Your task to perform on an android device: all mails in gmail Image 0: 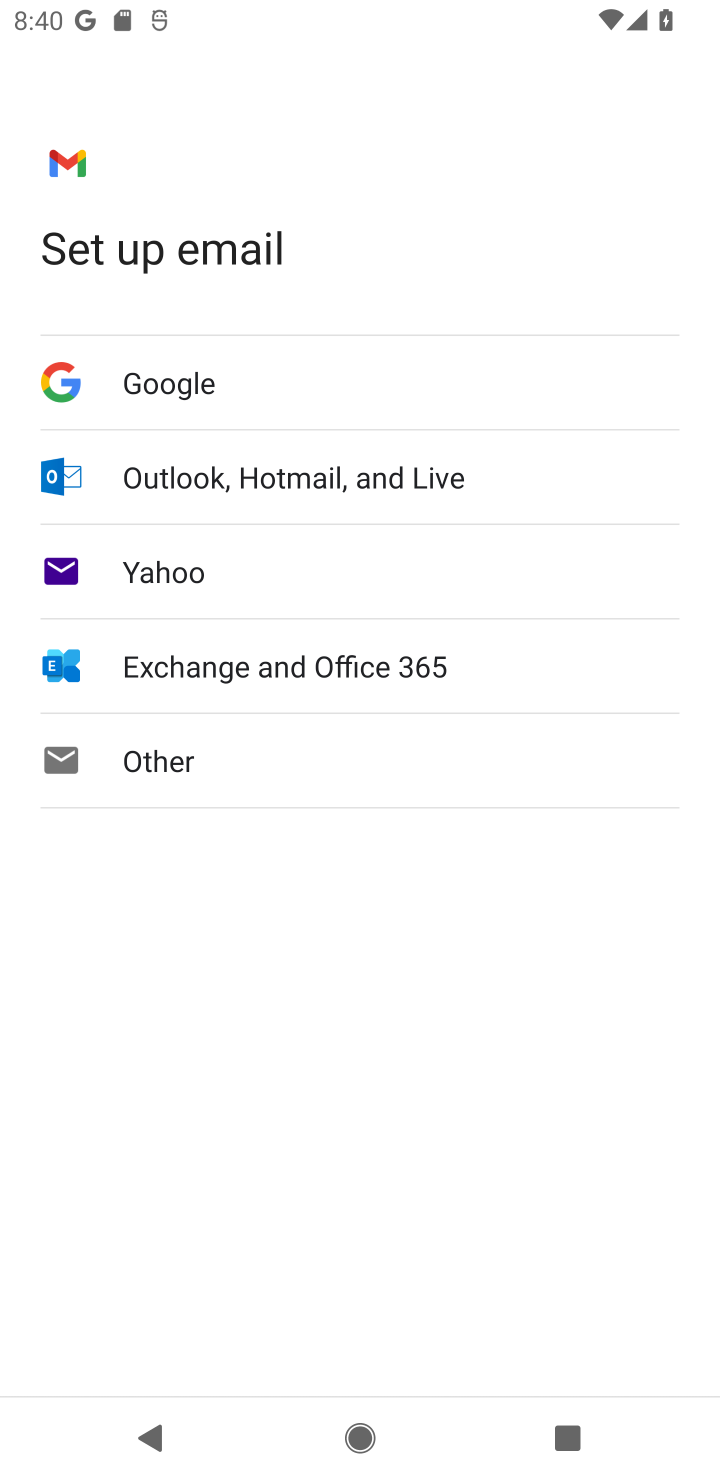
Step 0: press home button
Your task to perform on an android device: all mails in gmail Image 1: 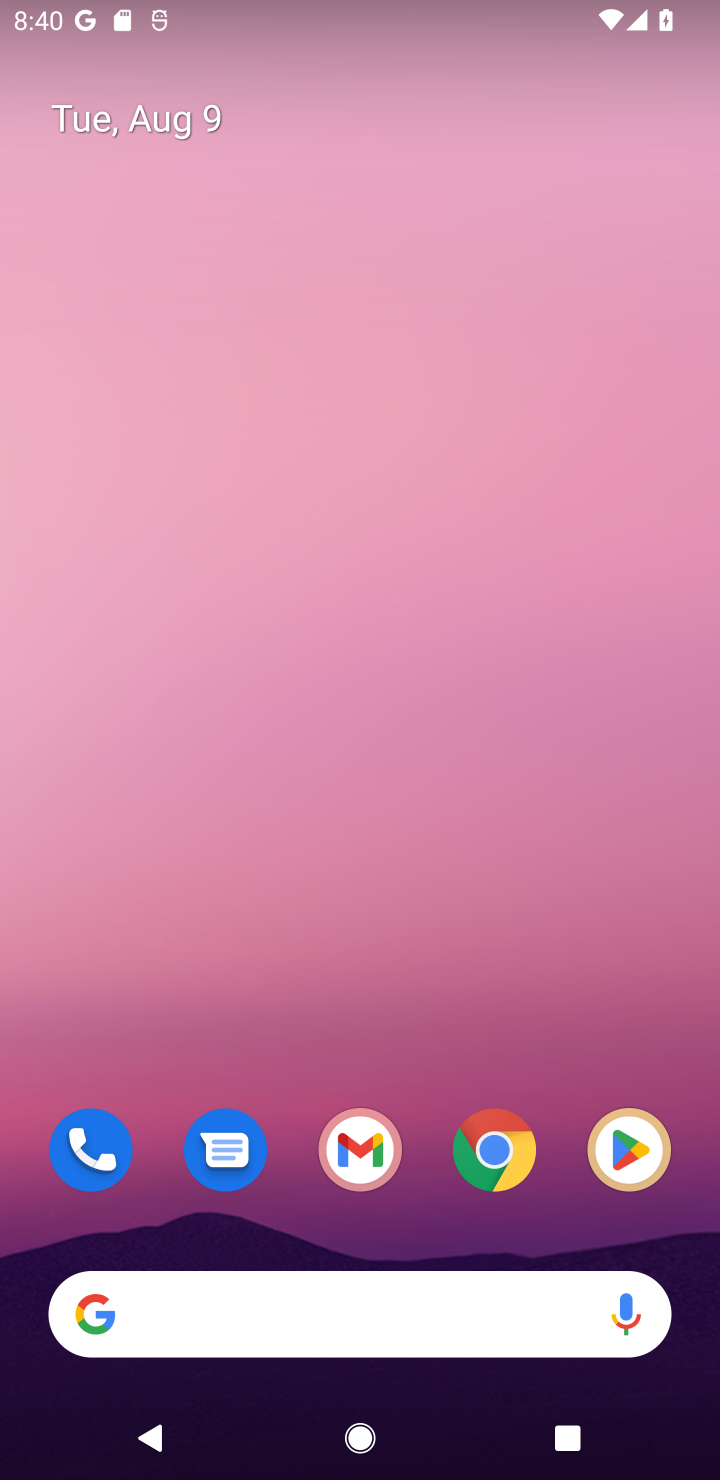
Step 1: drag from (352, 1278) to (433, 154)
Your task to perform on an android device: all mails in gmail Image 2: 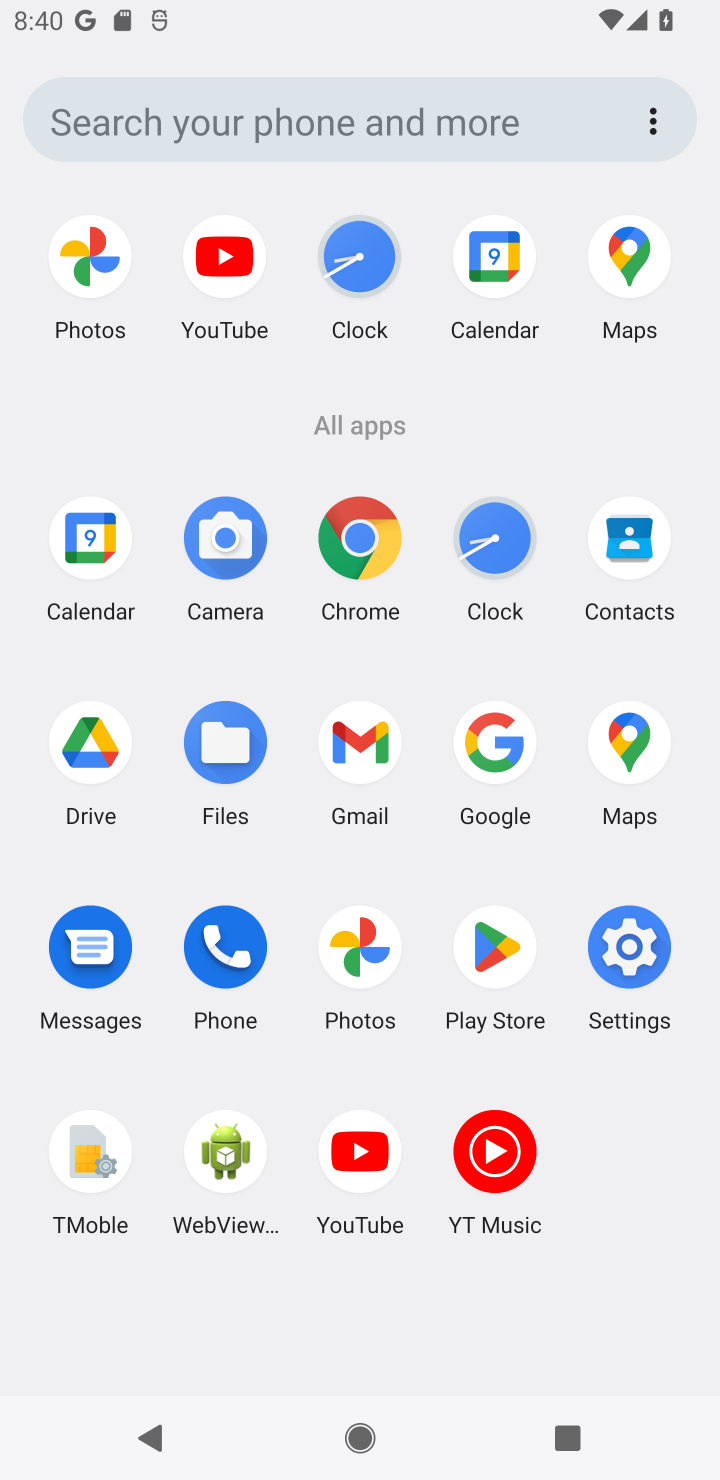
Step 2: click (362, 736)
Your task to perform on an android device: all mails in gmail Image 3: 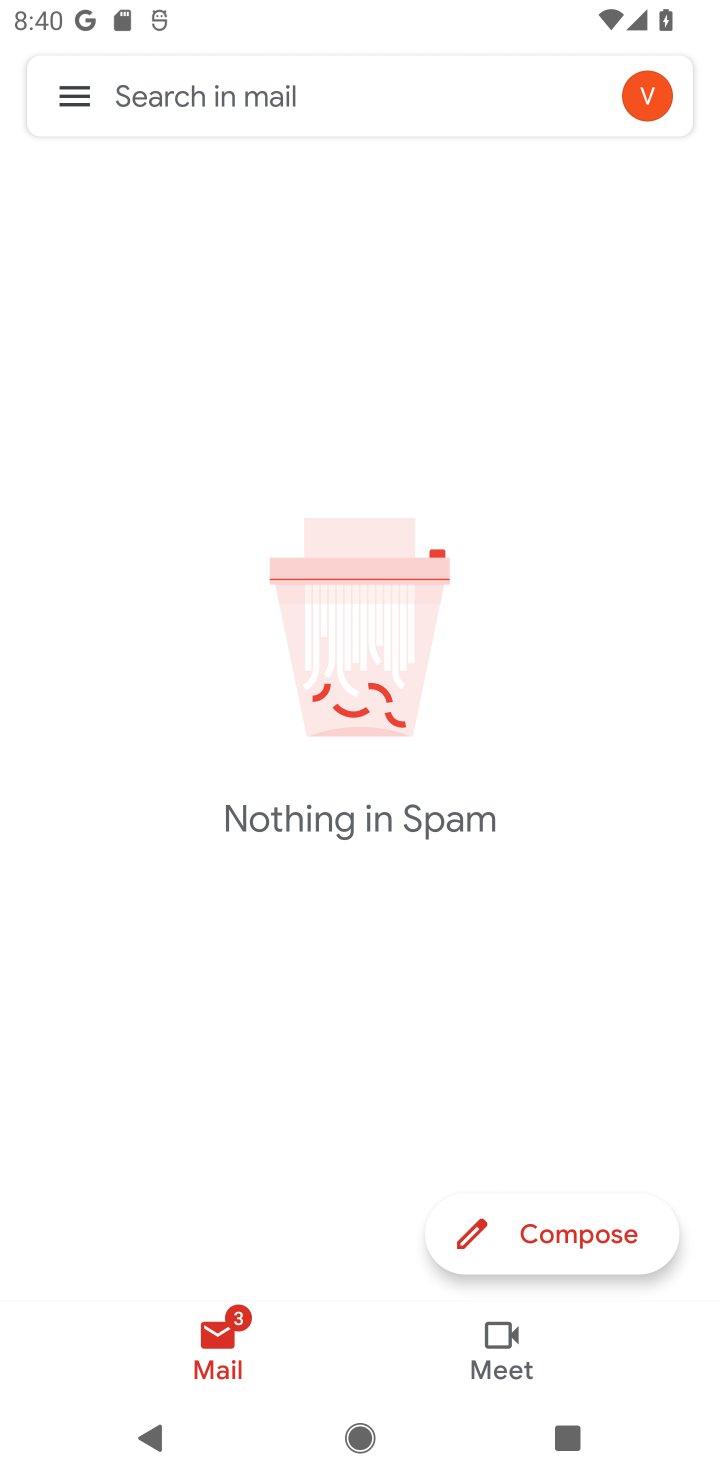
Step 3: click (76, 114)
Your task to perform on an android device: all mails in gmail Image 4: 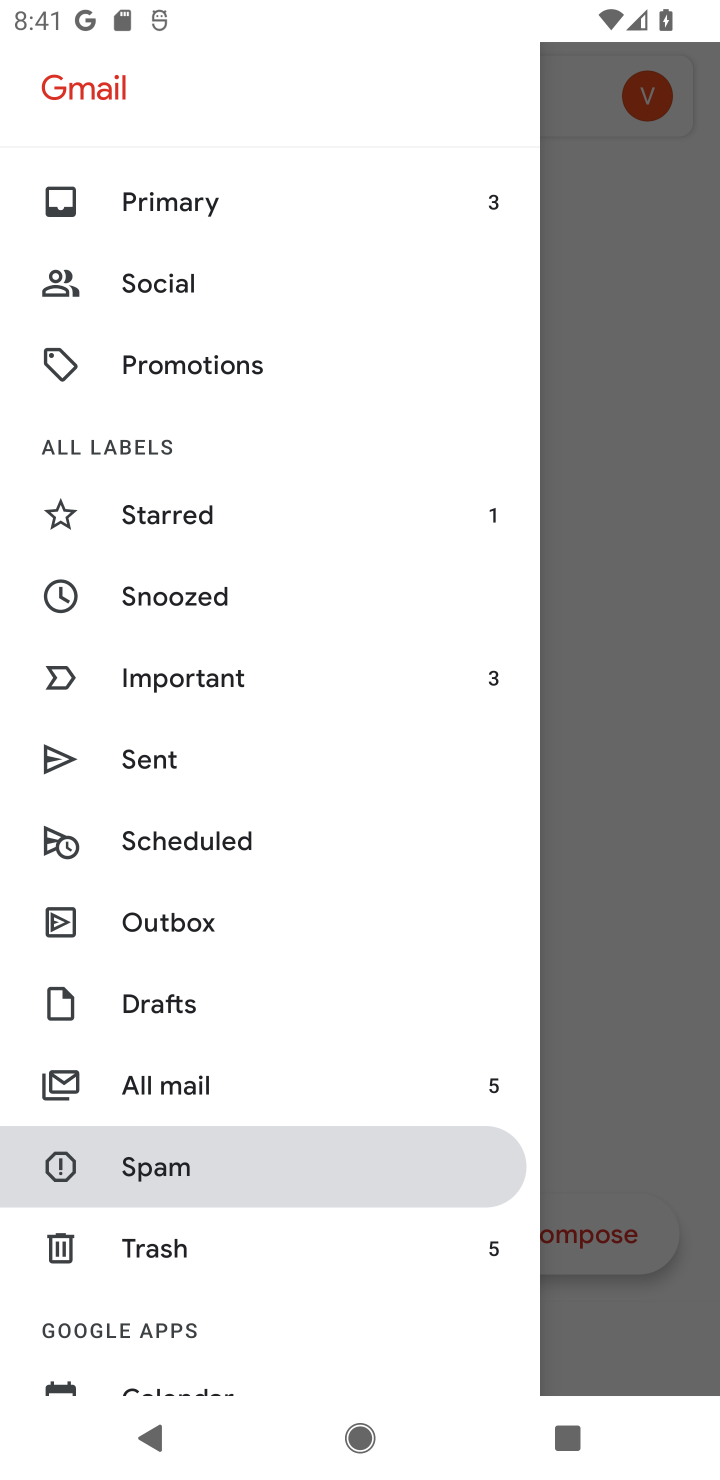
Step 4: task complete